Your task to perform on an android device: Go to Yahoo.com Image 0: 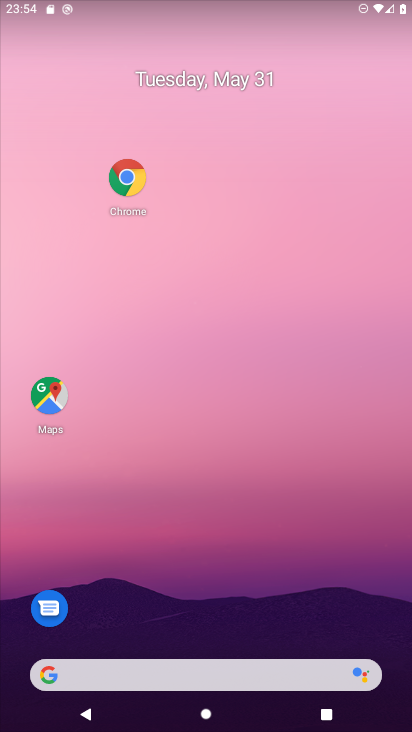
Step 0: press home button
Your task to perform on an android device: Go to Yahoo.com Image 1: 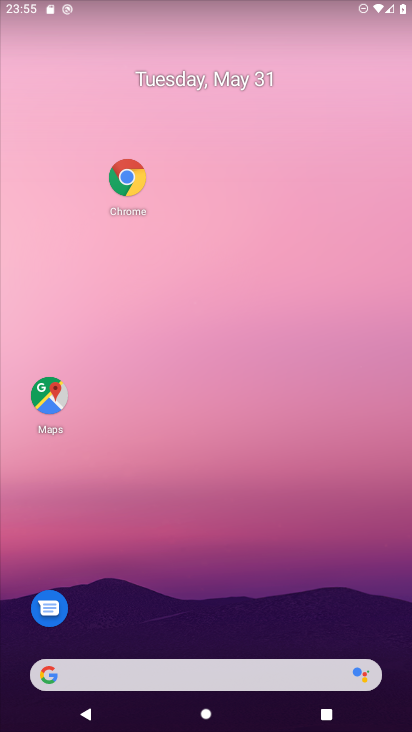
Step 1: click (121, 163)
Your task to perform on an android device: Go to Yahoo.com Image 2: 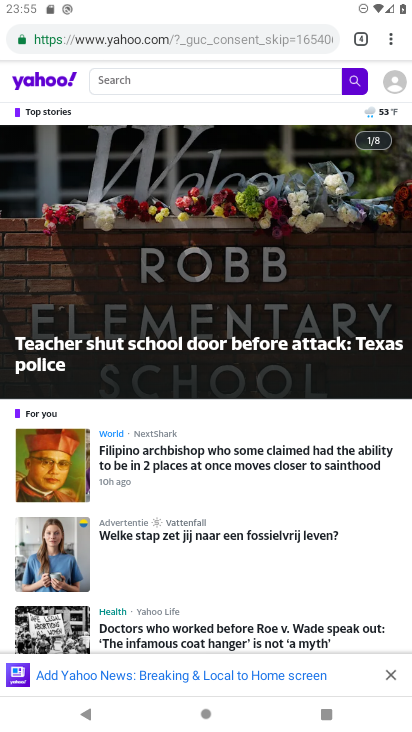
Step 2: task complete